Your task to perform on an android device: Search for the best vacuum on Walmart Image 0: 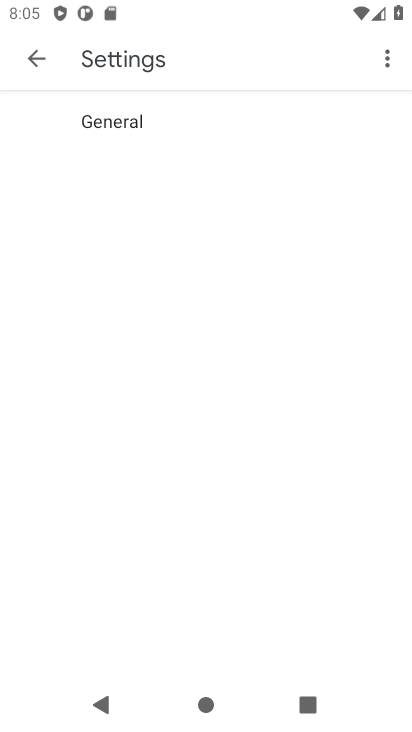
Step 0: press home button
Your task to perform on an android device: Search for the best vacuum on Walmart Image 1: 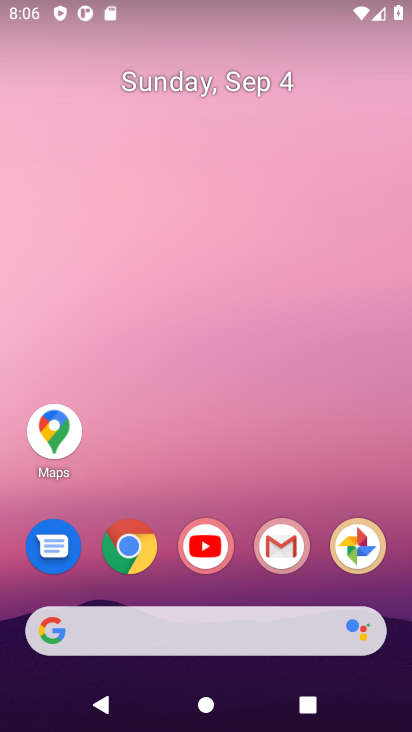
Step 1: click (141, 545)
Your task to perform on an android device: Search for the best vacuum on Walmart Image 2: 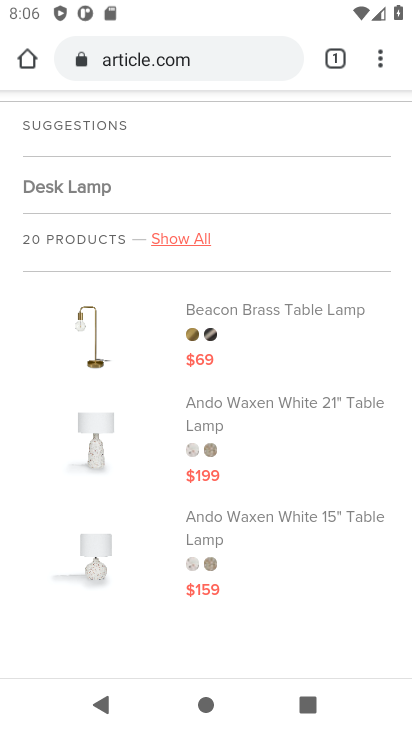
Step 2: click (161, 70)
Your task to perform on an android device: Search for the best vacuum on Walmart Image 3: 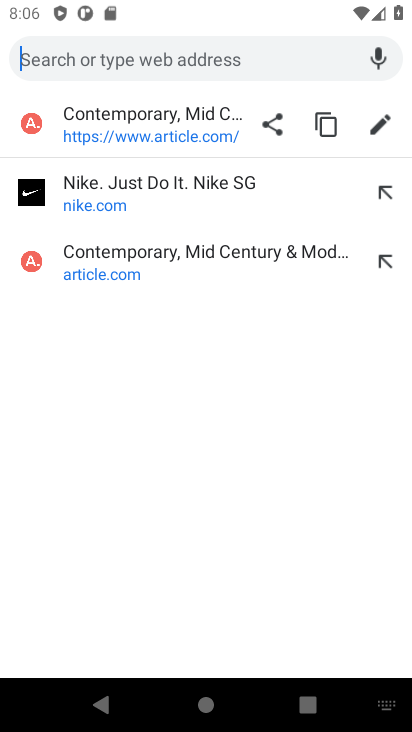
Step 3: type "Walmart"
Your task to perform on an android device: Search for the best vacuum on Walmart Image 4: 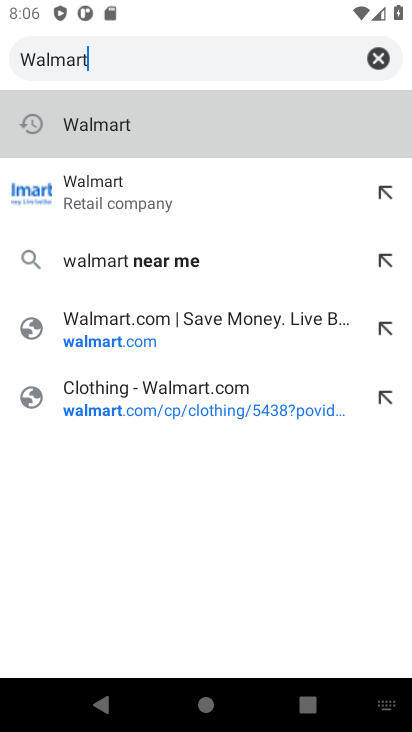
Step 4: click (71, 182)
Your task to perform on an android device: Search for the best vacuum on Walmart Image 5: 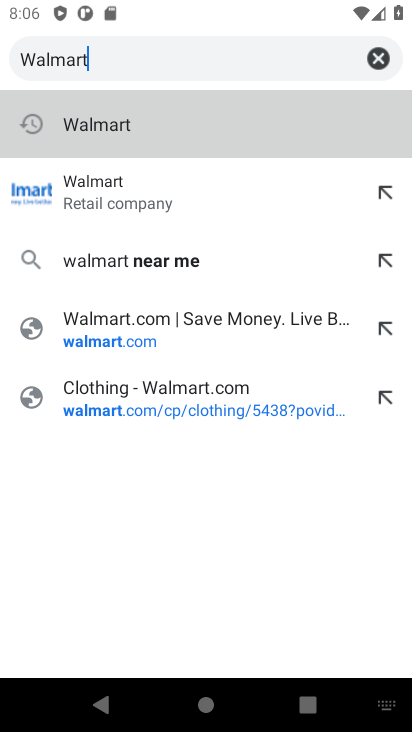
Step 5: click (90, 322)
Your task to perform on an android device: Search for the best vacuum on Walmart Image 6: 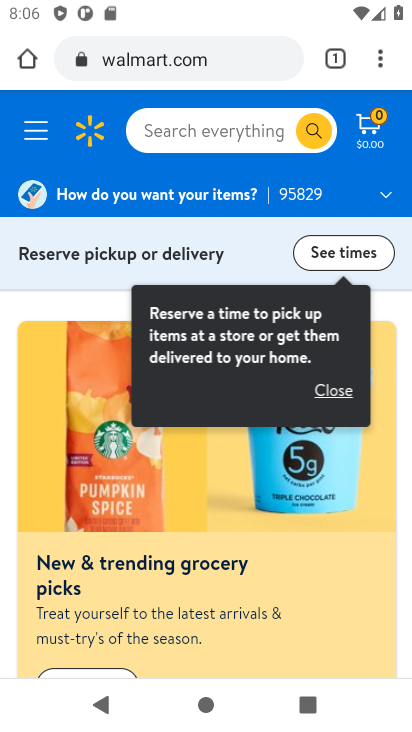
Step 6: click (155, 139)
Your task to perform on an android device: Search for the best vacuum on Walmart Image 7: 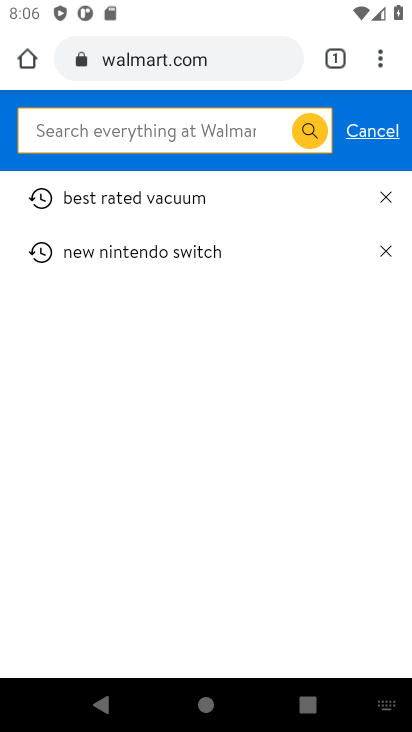
Step 7: type "best vacuum"
Your task to perform on an android device: Search for the best vacuum on Walmart Image 8: 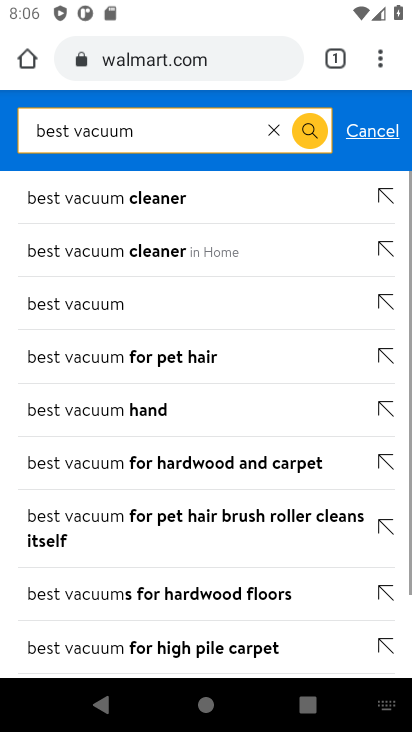
Step 8: click (127, 211)
Your task to perform on an android device: Search for the best vacuum on Walmart Image 9: 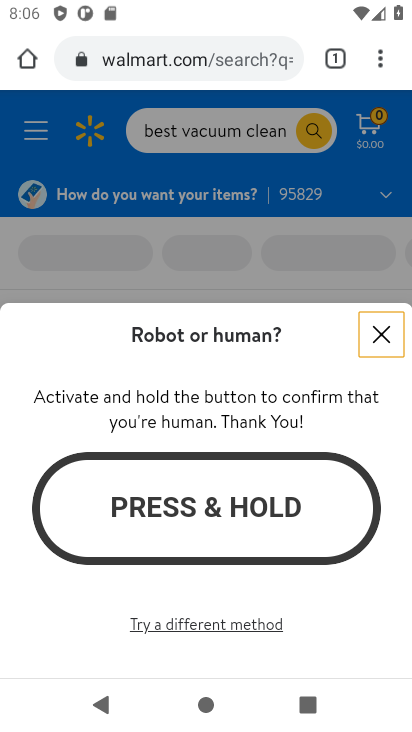
Step 9: click (376, 333)
Your task to perform on an android device: Search for the best vacuum on Walmart Image 10: 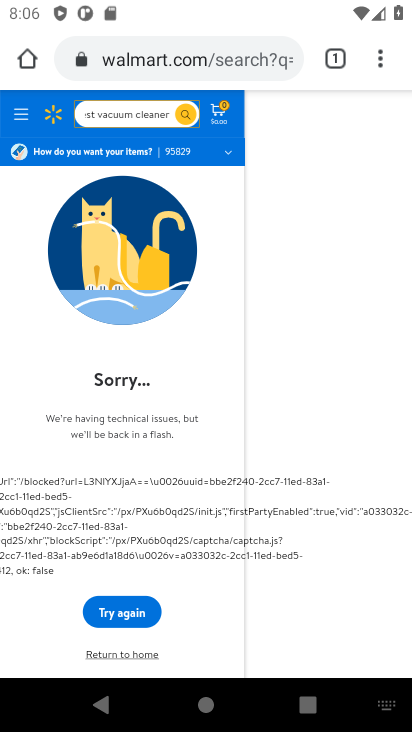
Step 10: click (117, 607)
Your task to perform on an android device: Search for the best vacuum on Walmart Image 11: 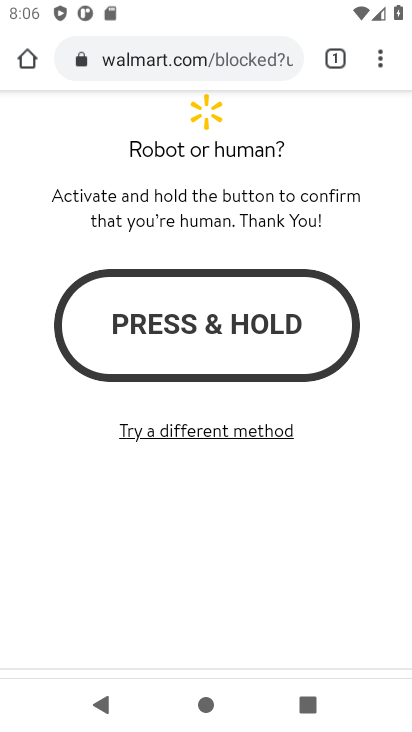
Step 11: click (189, 329)
Your task to perform on an android device: Search for the best vacuum on Walmart Image 12: 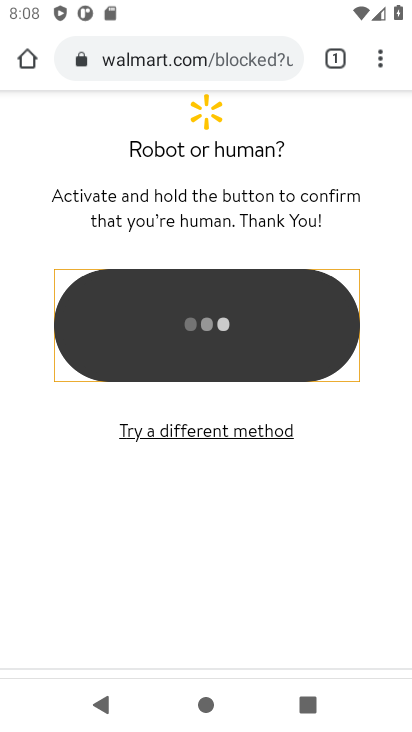
Step 12: task complete